Your task to perform on an android device: Go to location settings Image 0: 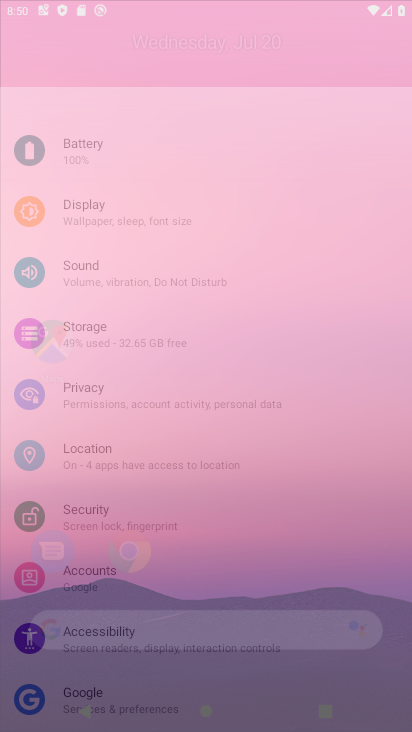
Step 0: drag from (201, 605) to (183, 72)
Your task to perform on an android device: Go to location settings Image 1: 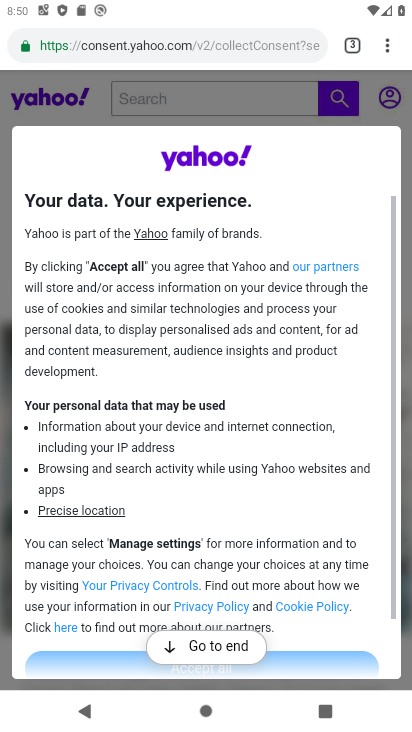
Step 1: press home button
Your task to perform on an android device: Go to location settings Image 2: 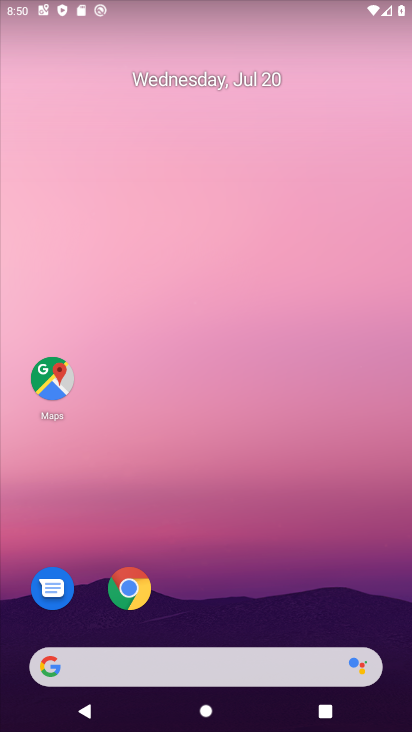
Step 2: drag from (225, 630) to (270, 8)
Your task to perform on an android device: Go to location settings Image 3: 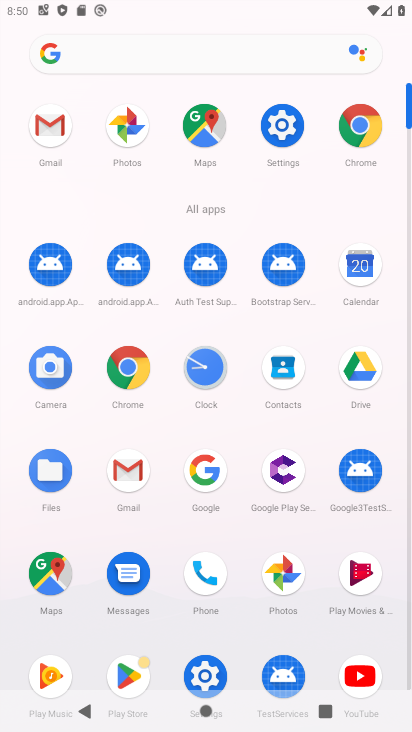
Step 3: click (313, 126)
Your task to perform on an android device: Go to location settings Image 4: 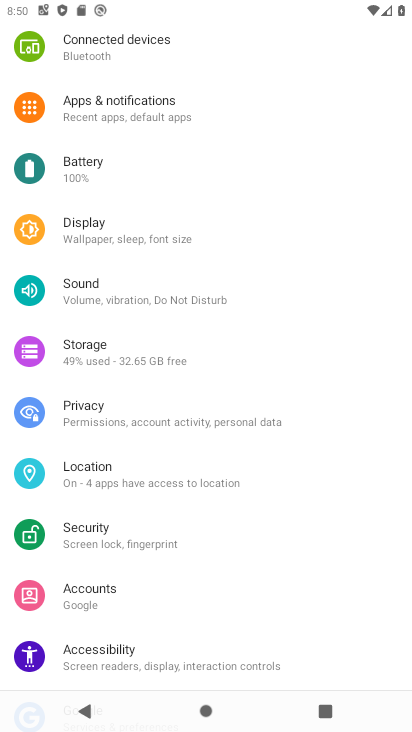
Step 4: click (205, 485)
Your task to perform on an android device: Go to location settings Image 5: 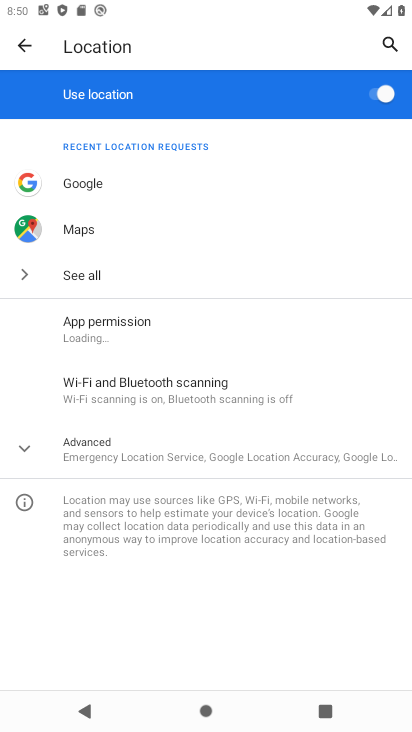
Step 5: task complete